Your task to perform on an android device: move an email to a new category in the gmail app Image 0: 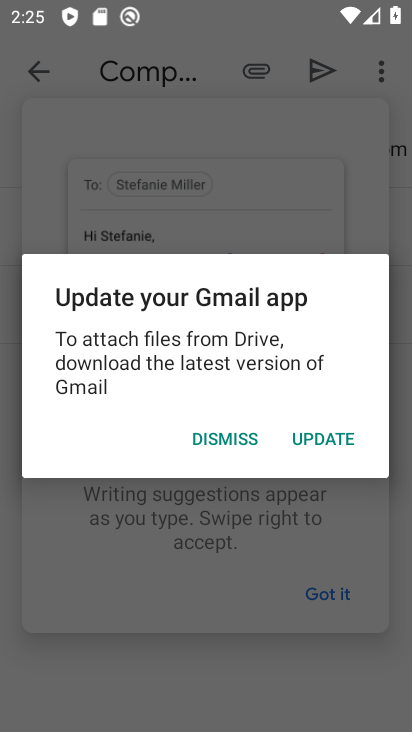
Step 0: press home button
Your task to perform on an android device: move an email to a new category in the gmail app Image 1: 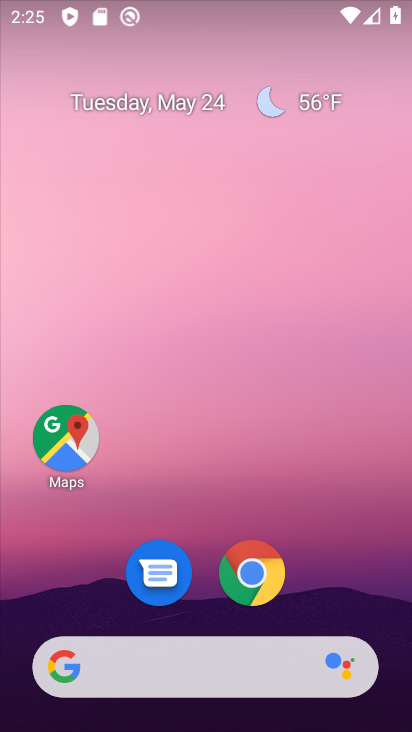
Step 1: drag from (320, 576) to (268, 48)
Your task to perform on an android device: move an email to a new category in the gmail app Image 2: 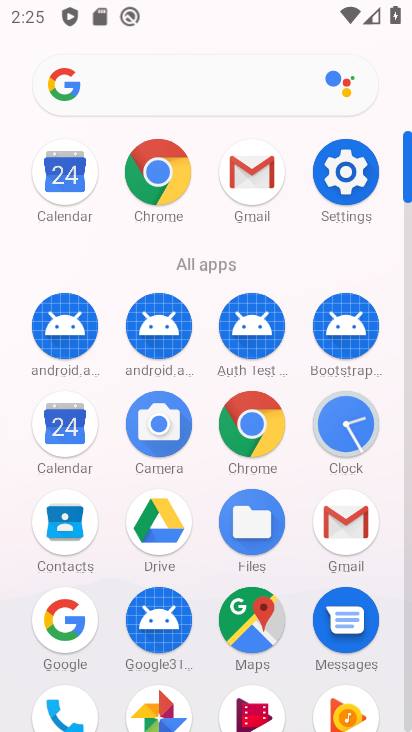
Step 2: drag from (13, 604) to (31, 203)
Your task to perform on an android device: move an email to a new category in the gmail app Image 3: 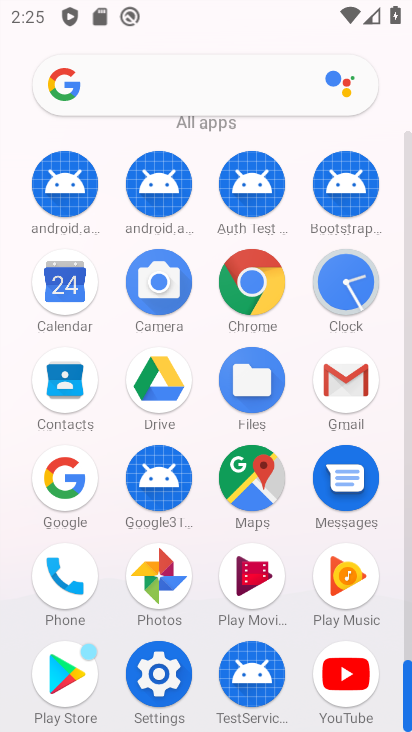
Step 3: drag from (22, 631) to (21, 292)
Your task to perform on an android device: move an email to a new category in the gmail app Image 4: 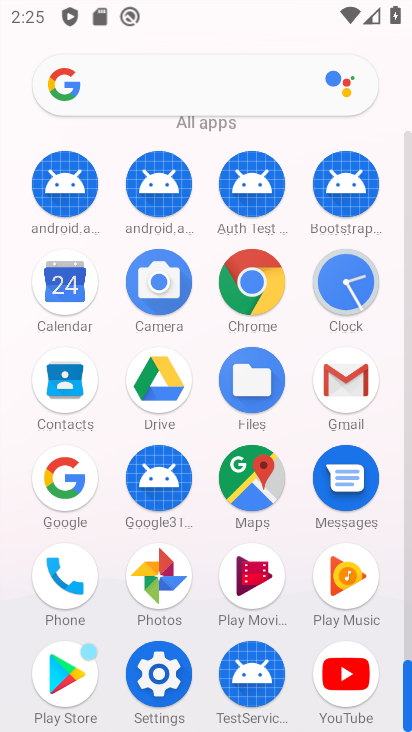
Step 4: drag from (24, 587) to (24, 292)
Your task to perform on an android device: move an email to a new category in the gmail app Image 5: 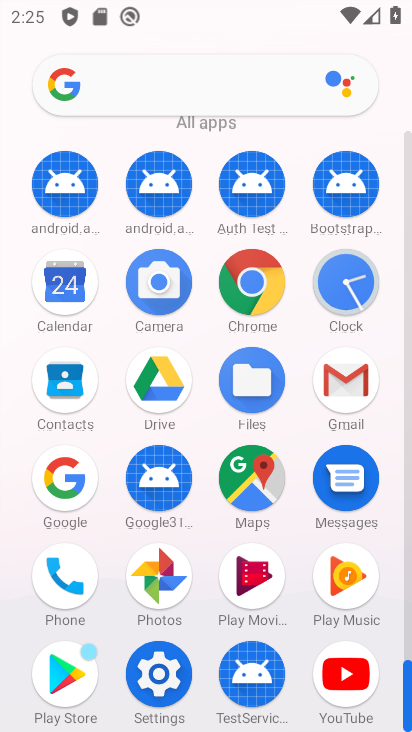
Step 5: click (340, 384)
Your task to perform on an android device: move an email to a new category in the gmail app Image 6: 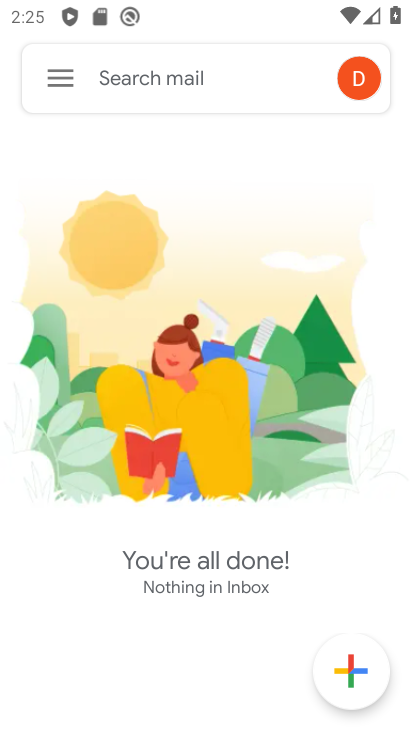
Step 6: click (57, 67)
Your task to perform on an android device: move an email to a new category in the gmail app Image 7: 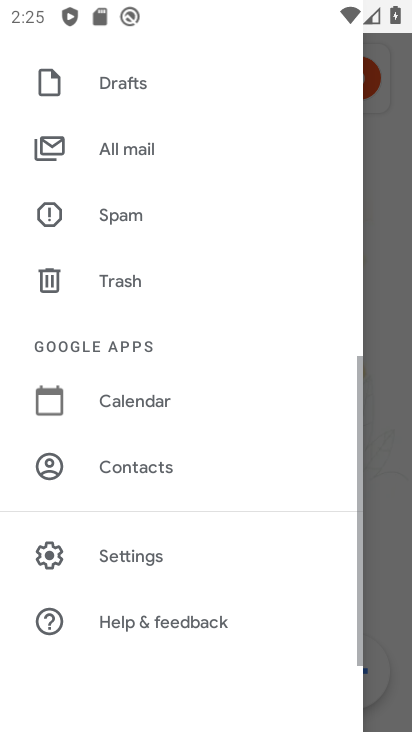
Step 7: click (155, 141)
Your task to perform on an android device: move an email to a new category in the gmail app Image 8: 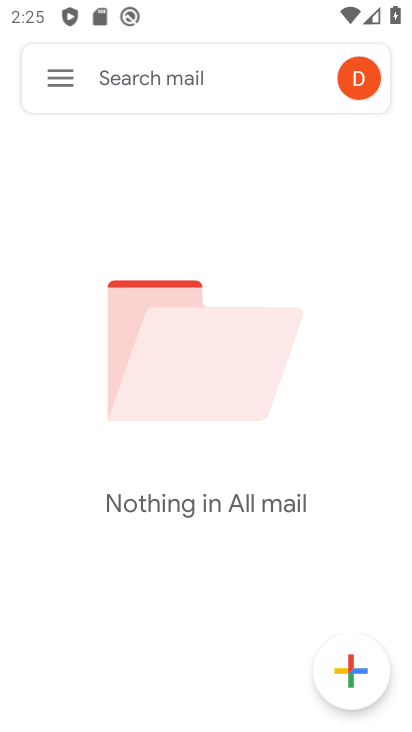
Step 8: click (59, 75)
Your task to perform on an android device: move an email to a new category in the gmail app Image 9: 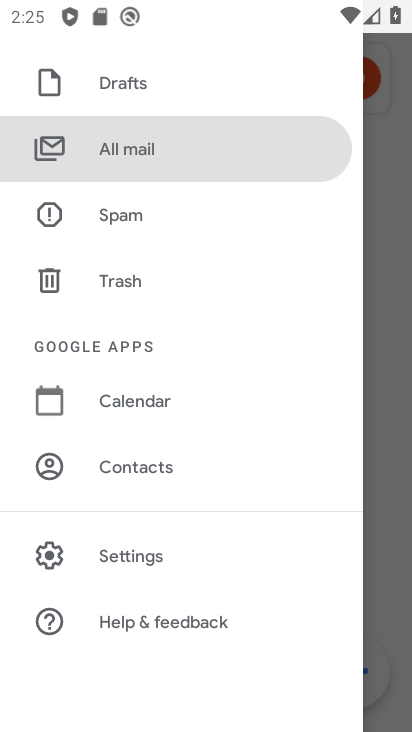
Step 9: drag from (171, 147) to (210, 596)
Your task to perform on an android device: move an email to a new category in the gmail app Image 10: 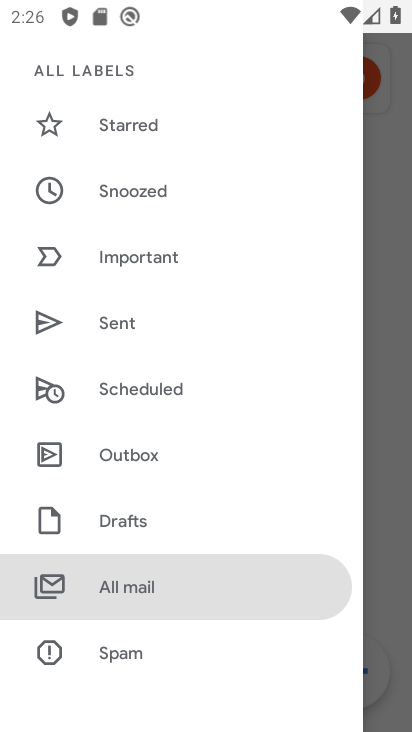
Step 10: drag from (188, 117) to (203, 554)
Your task to perform on an android device: move an email to a new category in the gmail app Image 11: 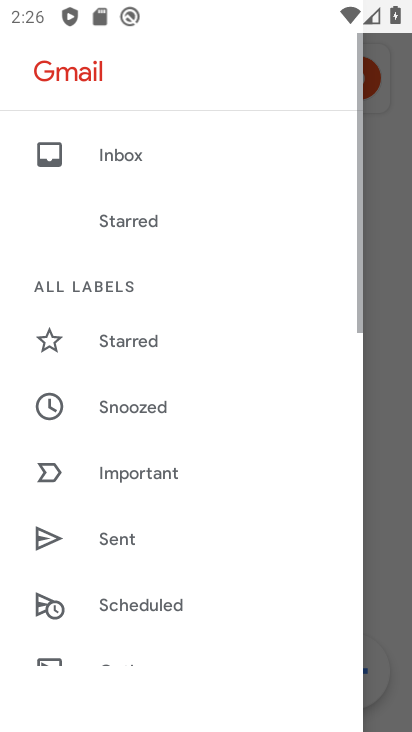
Step 11: click (162, 144)
Your task to perform on an android device: move an email to a new category in the gmail app Image 12: 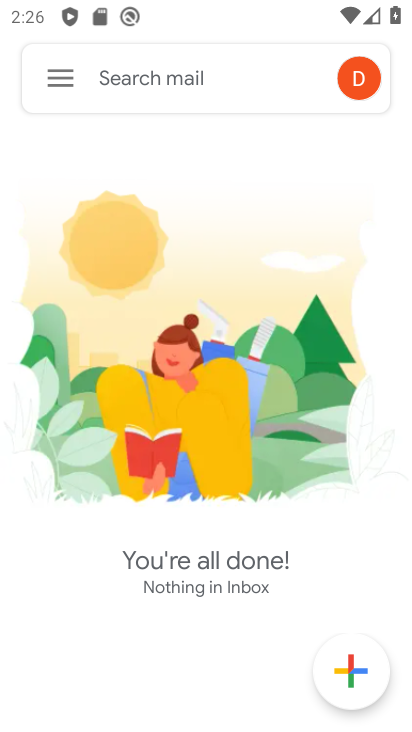
Step 12: drag from (167, 539) to (185, 128)
Your task to perform on an android device: move an email to a new category in the gmail app Image 13: 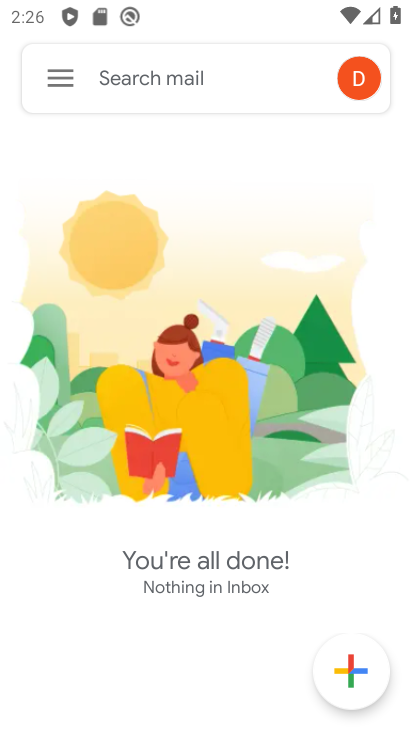
Step 13: click (60, 79)
Your task to perform on an android device: move an email to a new category in the gmail app Image 14: 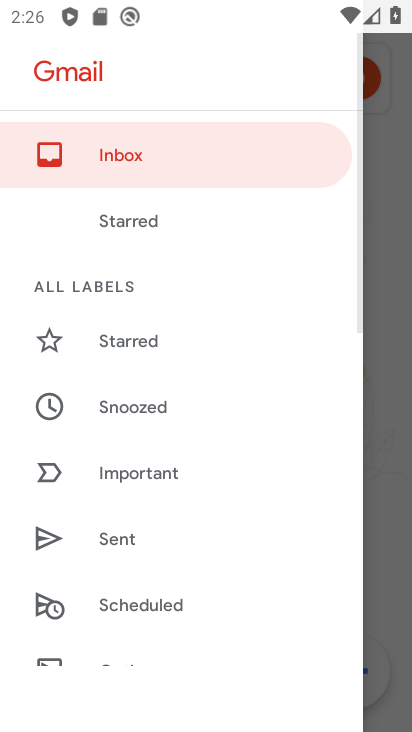
Step 14: drag from (141, 590) to (203, 153)
Your task to perform on an android device: move an email to a new category in the gmail app Image 15: 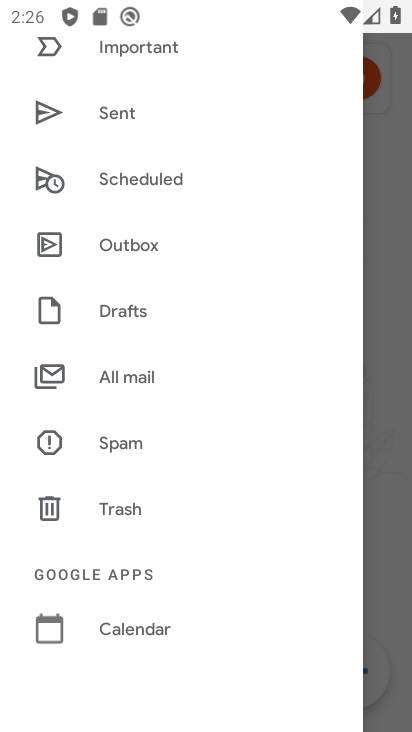
Step 15: click (151, 366)
Your task to perform on an android device: move an email to a new category in the gmail app Image 16: 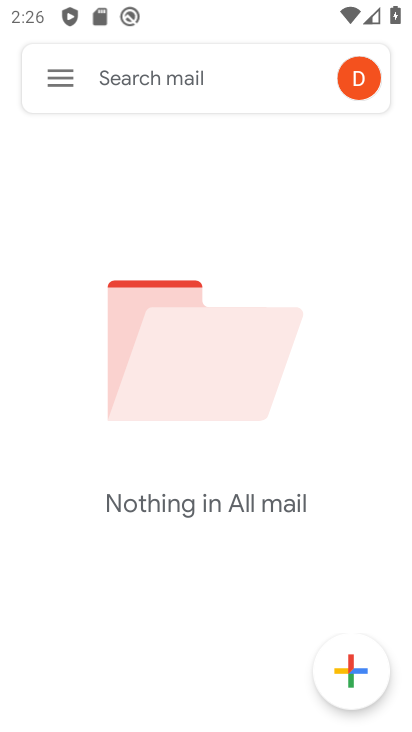
Step 16: click (71, 63)
Your task to perform on an android device: move an email to a new category in the gmail app Image 17: 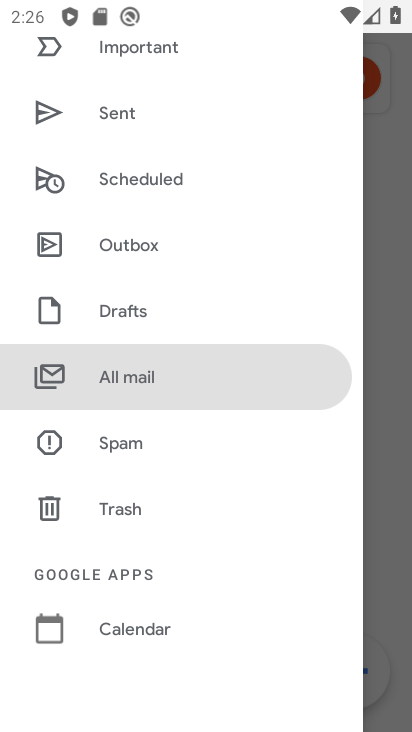
Step 17: drag from (223, 231) to (238, 561)
Your task to perform on an android device: move an email to a new category in the gmail app Image 18: 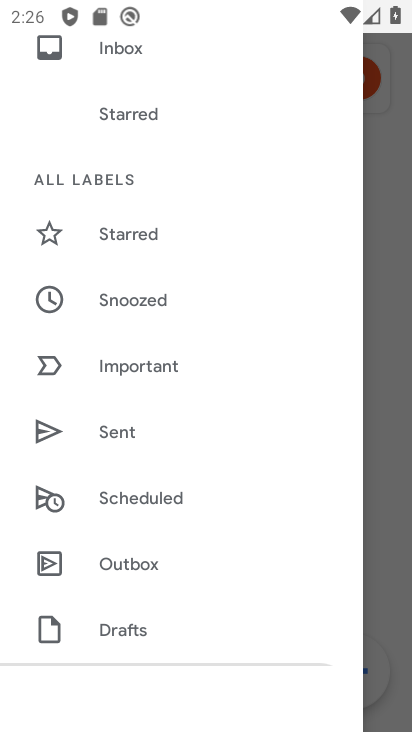
Step 18: drag from (207, 464) to (204, 205)
Your task to perform on an android device: move an email to a new category in the gmail app Image 19: 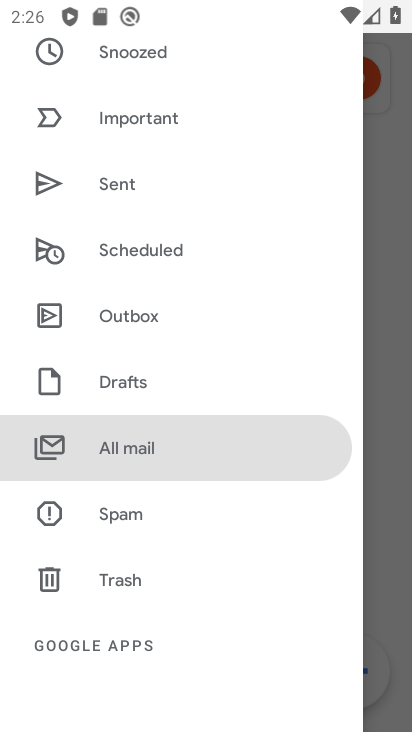
Step 19: click (150, 452)
Your task to perform on an android device: move an email to a new category in the gmail app Image 20: 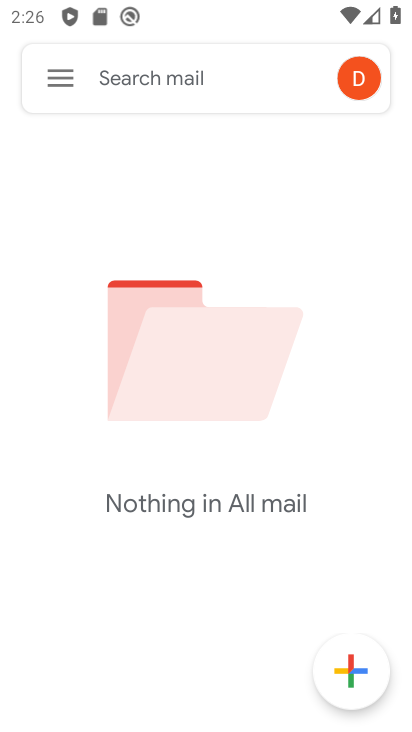
Step 20: task complete